Your task to perform on an android device: Go to battery settings Image 0: 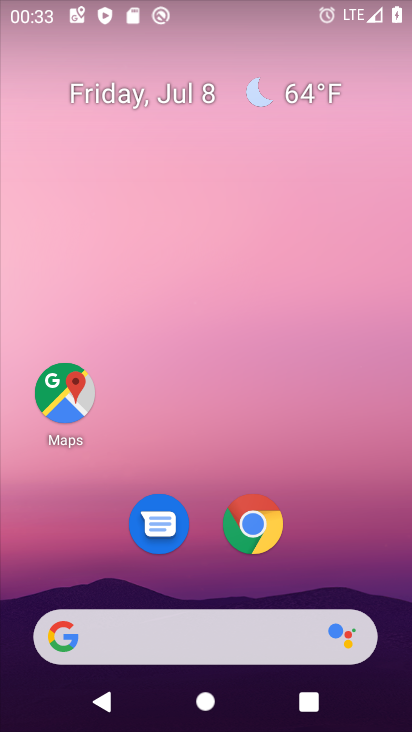
Step 0: drag from (235, 438) to (260, 1)
Your task to perform on an android device: Go to battery settings Image 1: 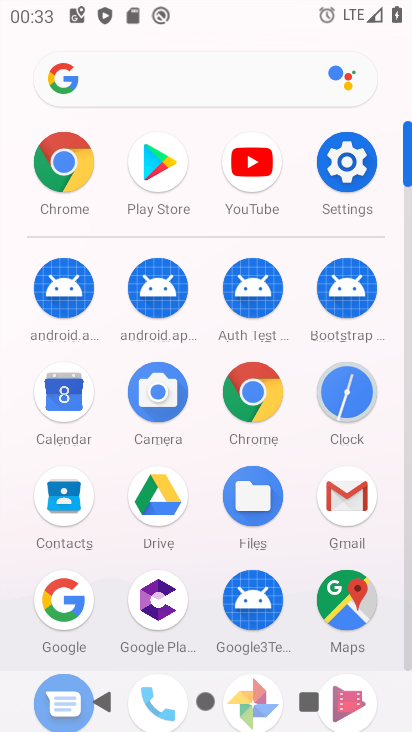
Step 1: click (351, 159)
Your task to perform on an android device: Go to battery settings Image 2: 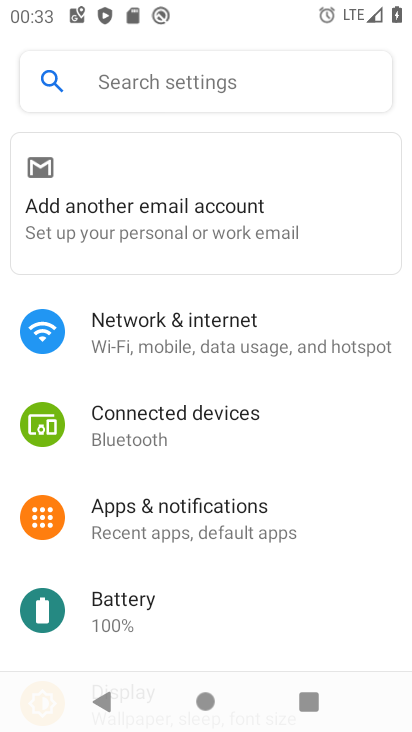
Step 2: click (134, 599)
Your task to perform on an android device: Go to battery settings Image 3: 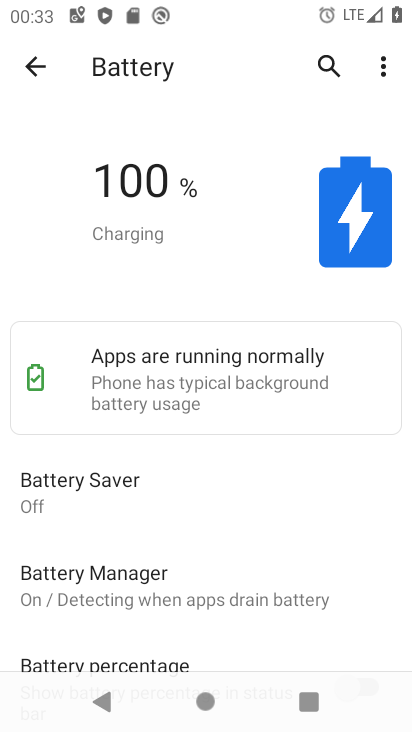
Step 3: task complete